Your task to perform on an android device: Open Yahoo.com Image 0: 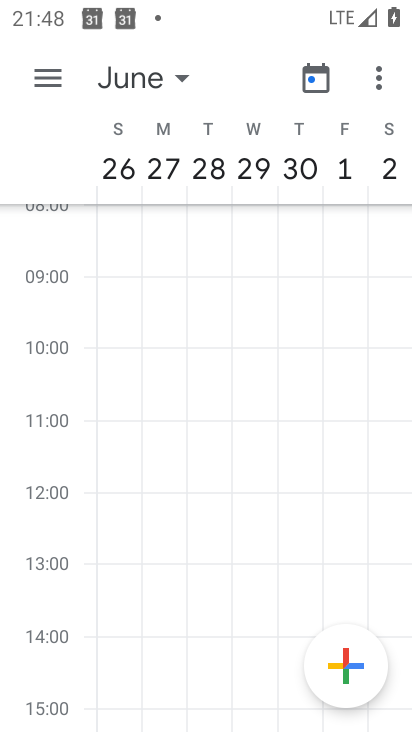
Step 0: press back button
Your task to perform on an android device: Open Yahoo.com Image 1: 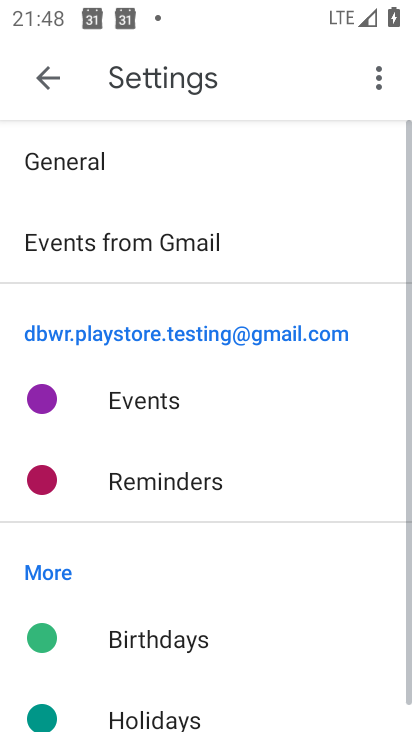
Step 1: press back button
Your task to perform on an android device: Open Yahoo.com Image 2: 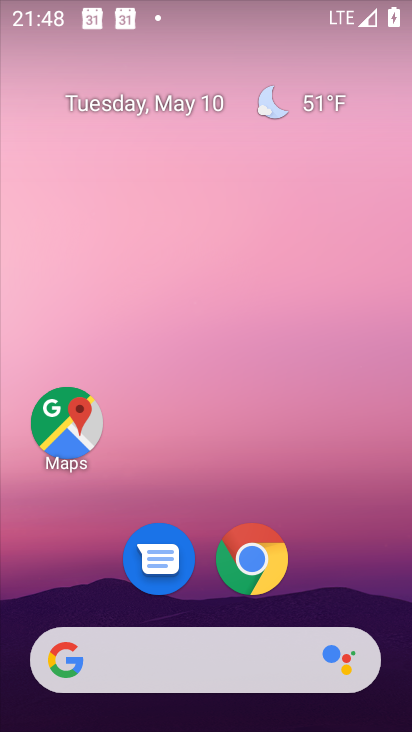
Step 2: click (254, 563)
Your task to perform on an android device: Open Yahoo.com Image 3: 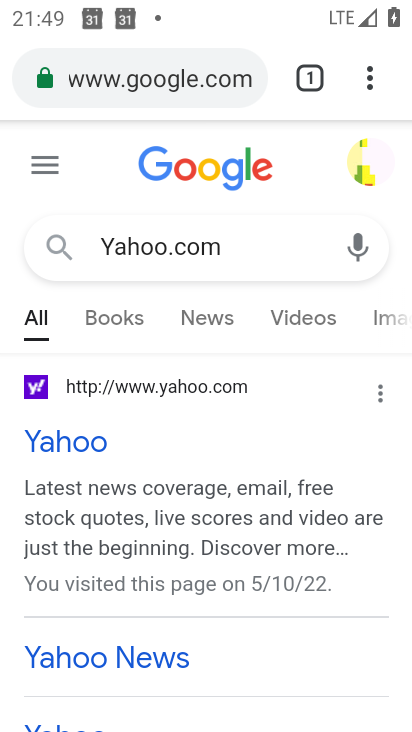
Step 3: click (55, 443)
Your task to perform on an android device: Open Yahoo.com Image 4: 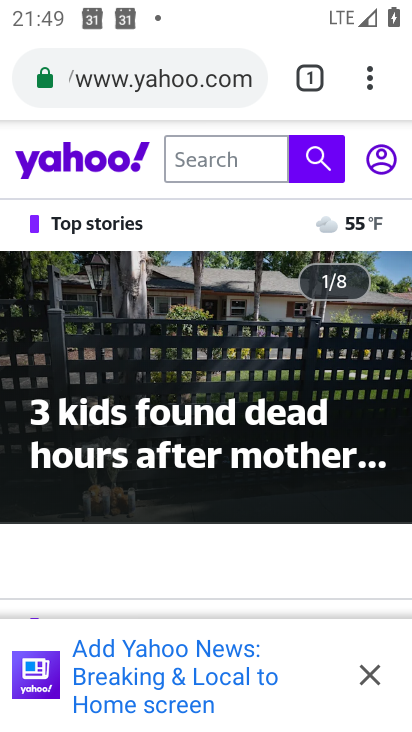
Step 4: task complete